Your task to perform on an android device: toggle show notifications on the lock screen Image 0: 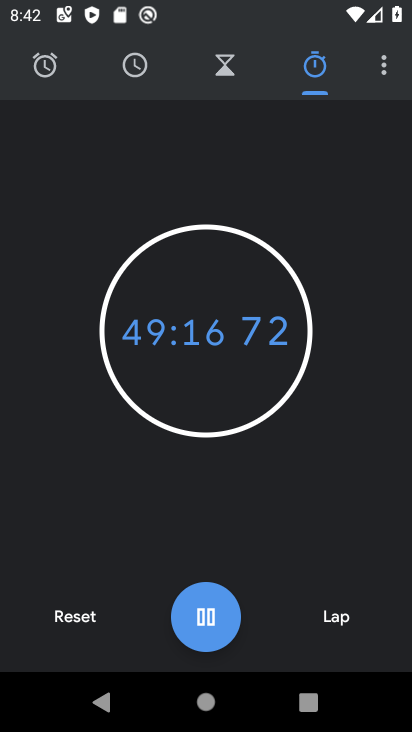
Step 0: press home button
Your task to perform on an android device: toggle show notifications on the lock screen Image 1: 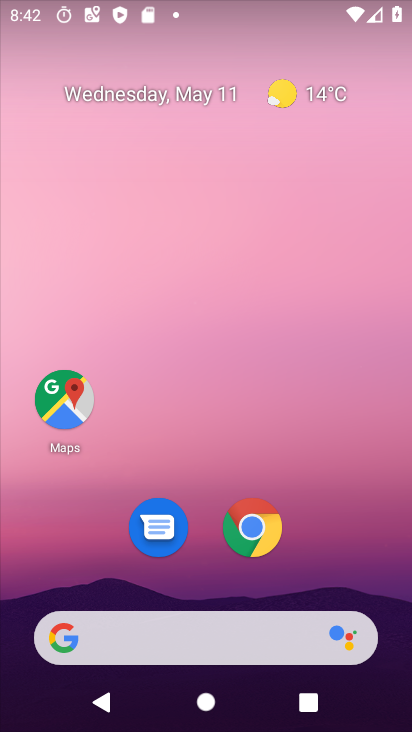
Step 1: drag from (222, 556) to (187, 219)
Your task to perform on an android device: toggle show notifications on the lock screen Image 2: 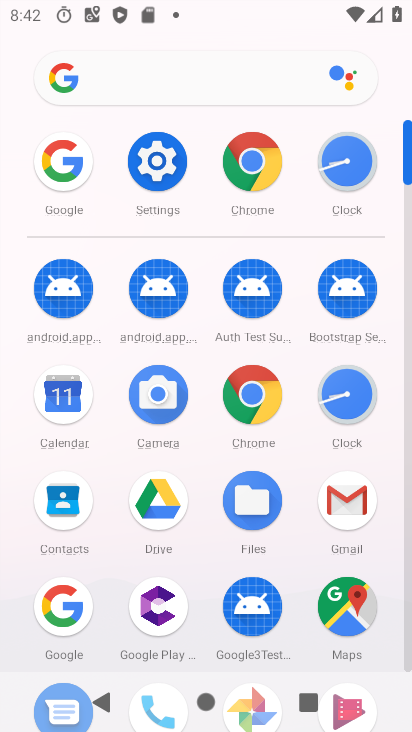
Step 2: drag from (171, 470) to (166, 389)
Your task to perform on an android device: toggle show notifications on the lock screen Image 3: 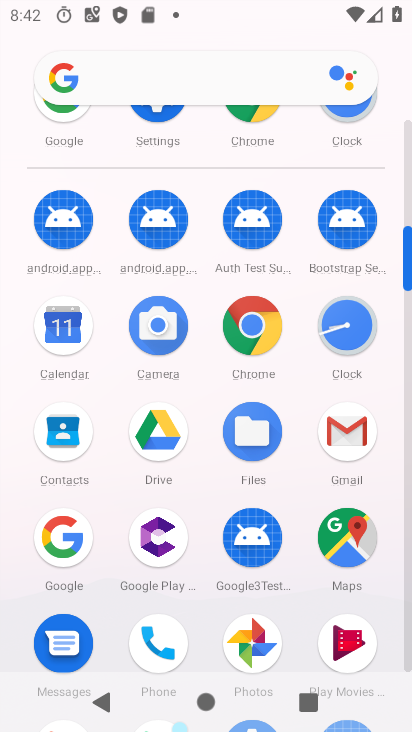
Step 3: click (157, 131)
Your task to perform on an android device: toggle show notifications on the lock screen Image 4: 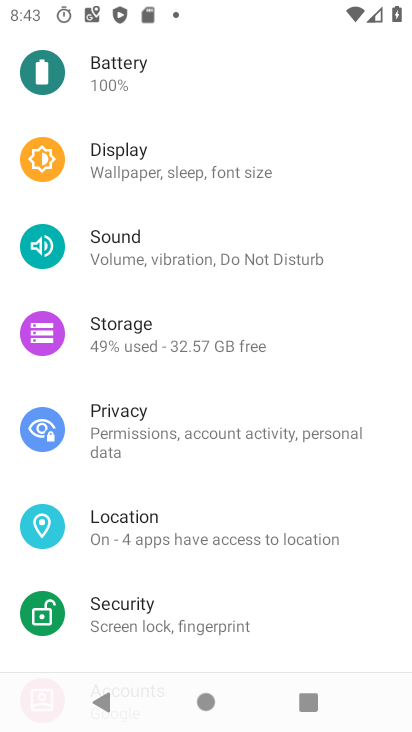
Step 4: drag from (132, 306) to (139, 726)
Your task to perform on an android device: toggle show notifications on the lock screen Image 5: 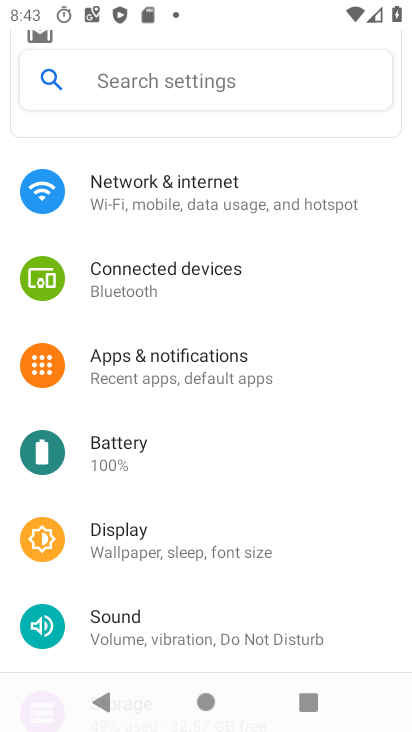
Step 5: click (203, 377)
Your task to perform on an android device: toggle show notifications on the lock screen Image 6: 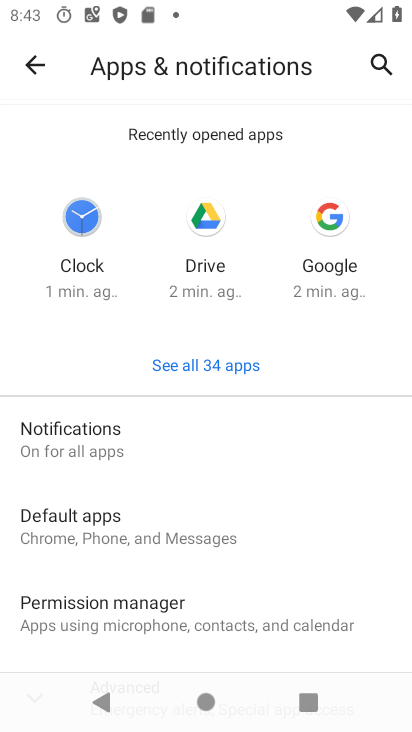
Step 6: click (202, 416)
Your task to perform on an android device: toggle show notifications on the lock screen Image 7: 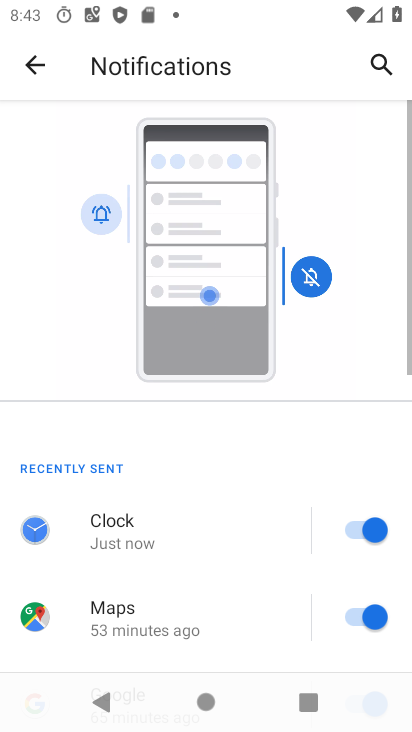
Step 7: drag from (170, 531) to (153, 331)
Your task to perform on an android device: toggle show notifications on the lock screen Image 8: 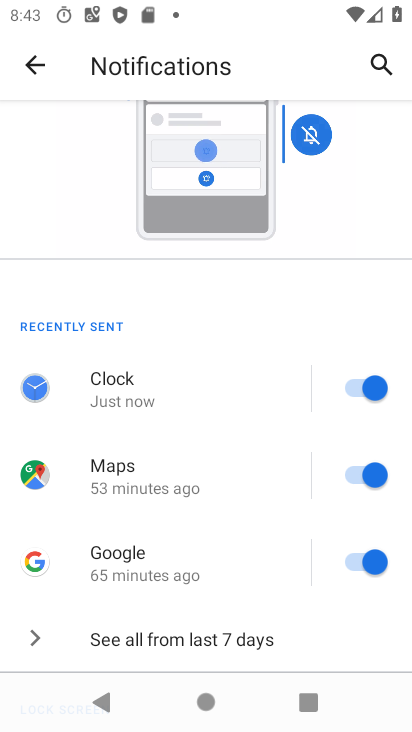
Step 8: drag from (149, 544) to (151, 471)
Your task to perform on an android device: toggle show notifications on the lock screen Image 9: 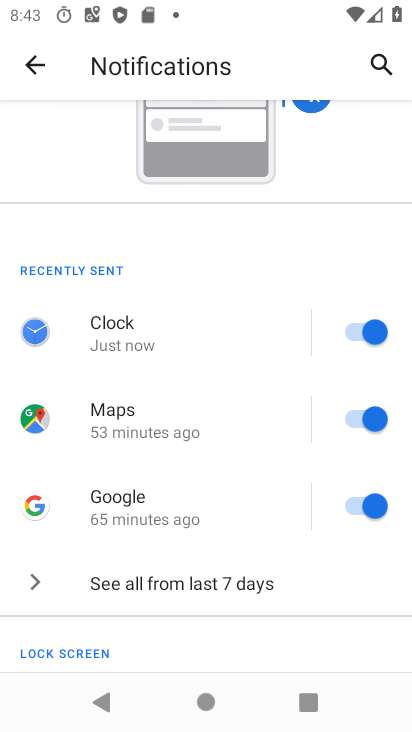
Step 9: drag from (155, 513) to (149, 339)
Your task to perform on an android device: toggle show notifications on the lock screen Image 10: 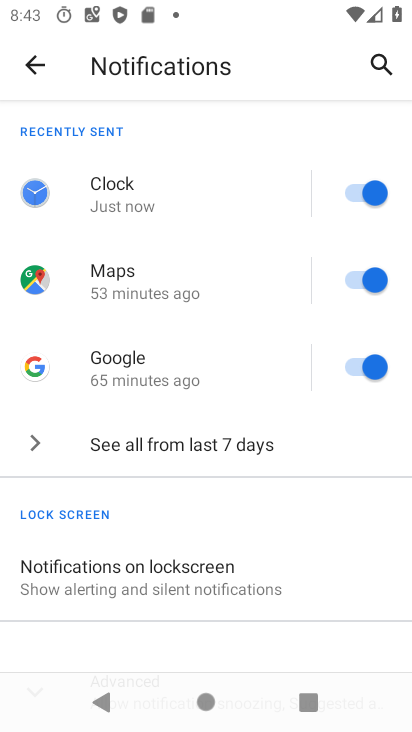
Step 10: click (200, 589)
Your task to perform on an android device: toggle show notifications on the lock screen Image 11: 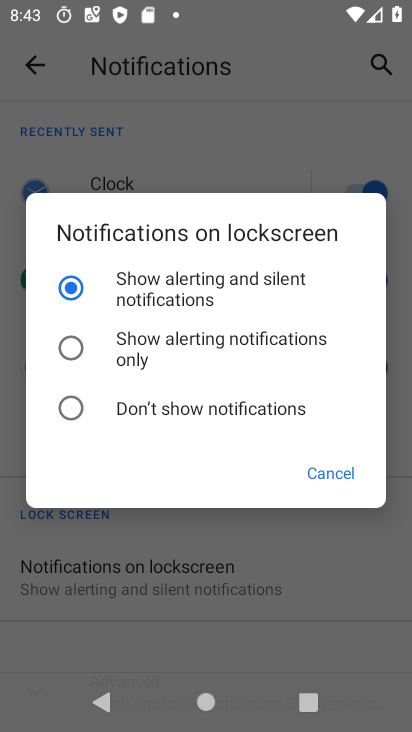
Step 11: click (123, 420)
Your task to perform on an android device: toggle show notifications on the lock screen Image 12: 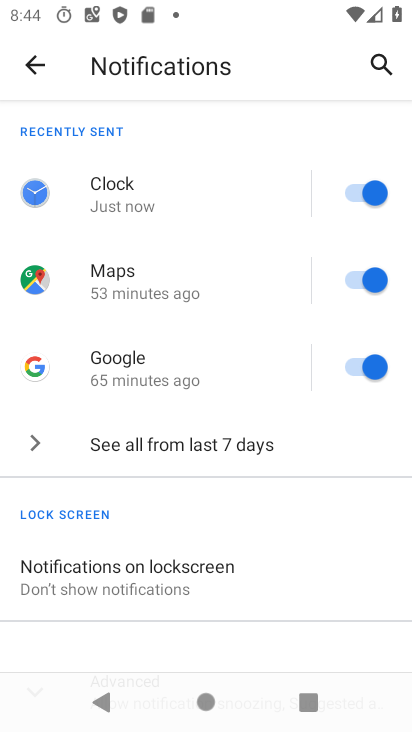
Step 12: task complete